Your task to perform on an android device: Open settings on Google Maps Image 0: 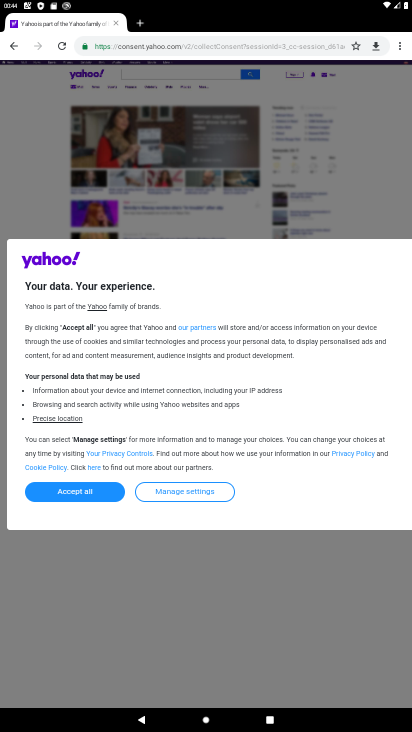
Step 0: click (189, 86)
Your task to perform on an android device: Open settings on Google Maps Image 1: 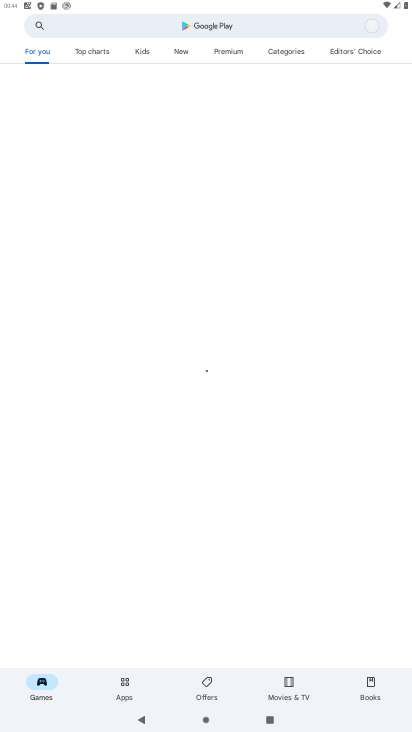
Step 1: press home button
Your task to perform on an android device: Open settings on Google Maps Image 2: 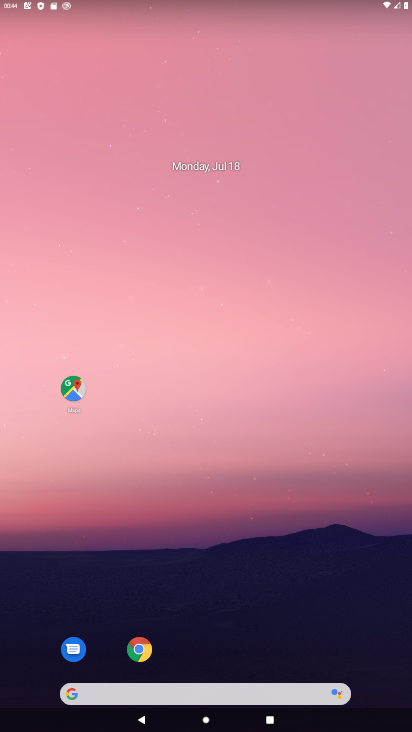
Step 2: click (207, 644)
Your task to perform on an android device: Open settings on Google Maps Image 3: 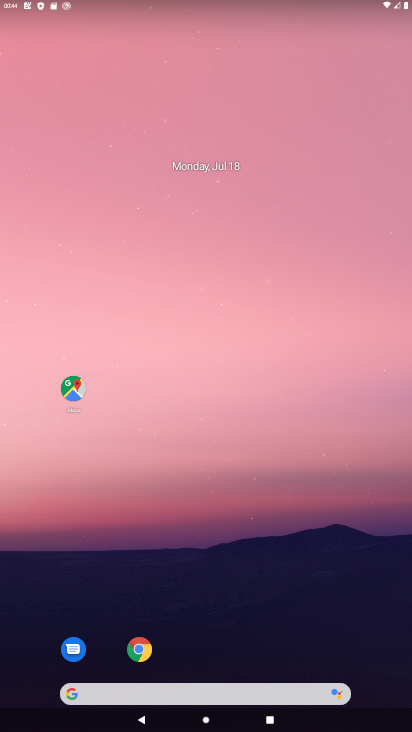
Step 3: click (76, 393)
Your task to perform on an android device: Open settings on Google Maps Image 4: 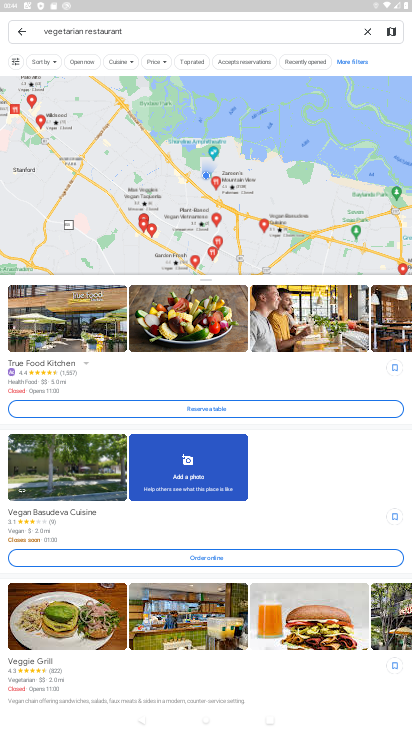
Step 4: click (18, 32)
Your task to perform on an android device: Open settings on Google Maps Image 5: 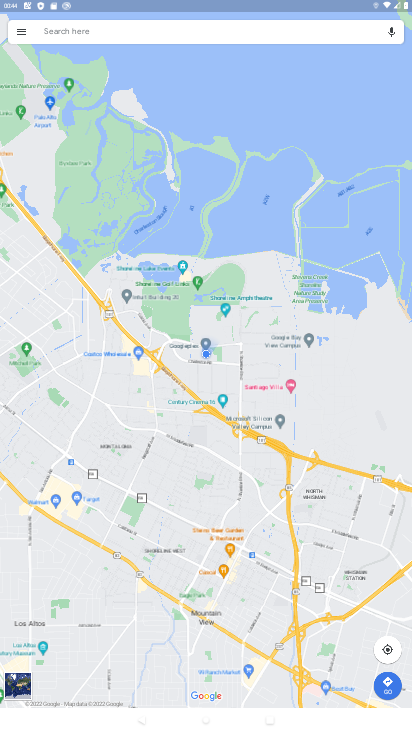
Step 5: click (18, 32)
Your task to perform on an android device: Open settings on Google Maps Image 6: 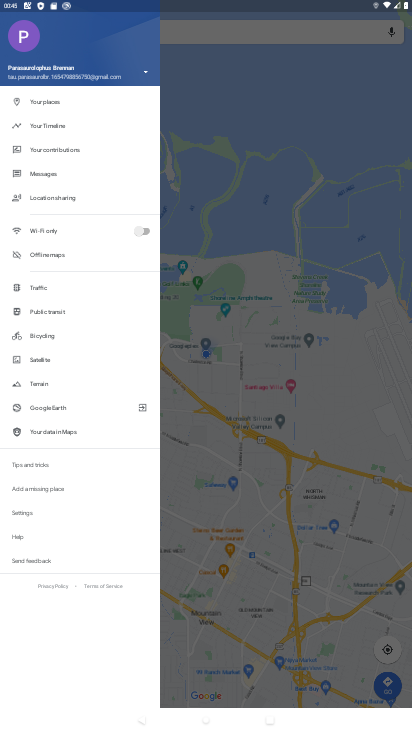
Step 6: click (28, 518)
Your task to perform on an android device: Open settings on Google Maps Image 7: 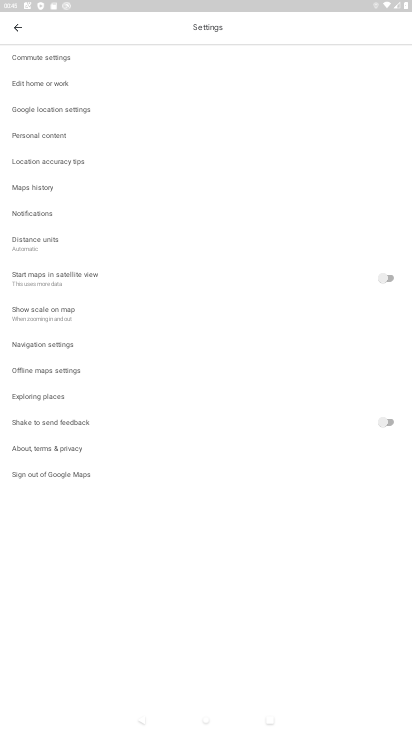
Step 7: task complete